Your task to perform on an android device: What's the weather? Image 0: 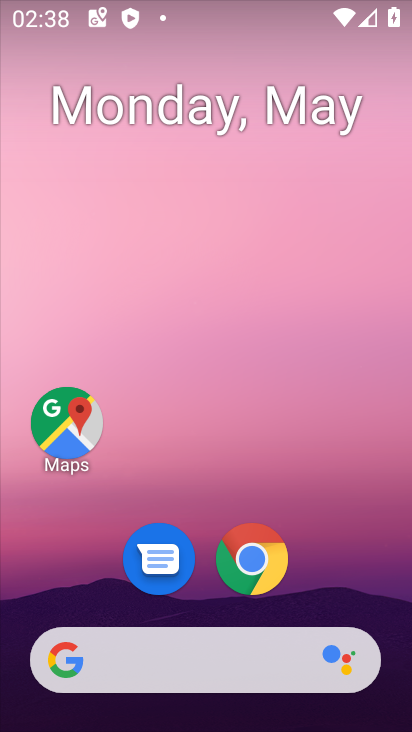
Step 0: click (255, 677)
Your task to perform on an android device: What's the weather? Image 1: 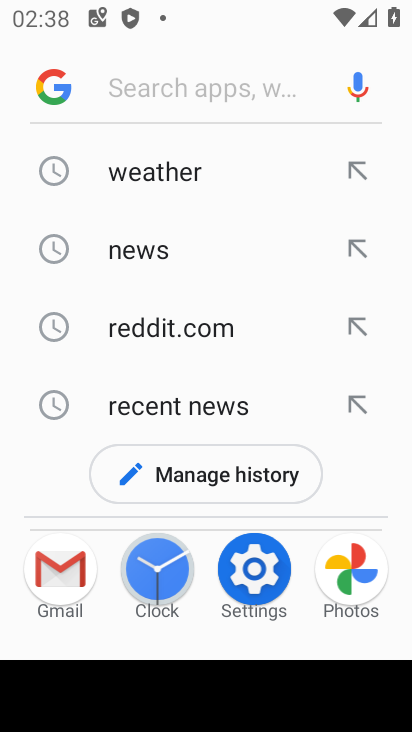
Step 1: click (271, 155)
Your task to perform on an android device: What's the weather? Image 2: 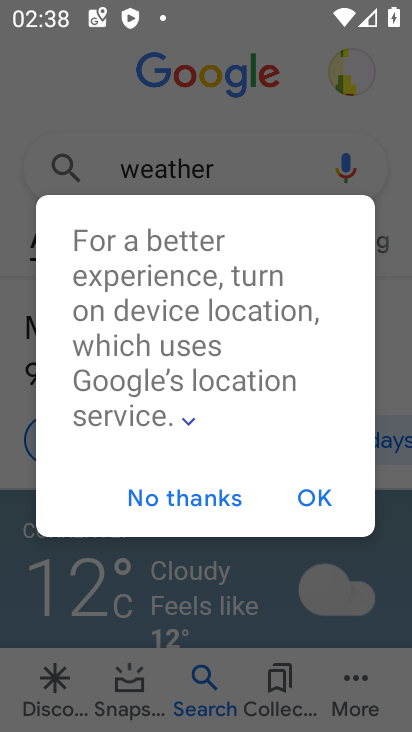
Step 2: click (221, 485)
Your task to perform on an android device: What's the weather? Image 3: 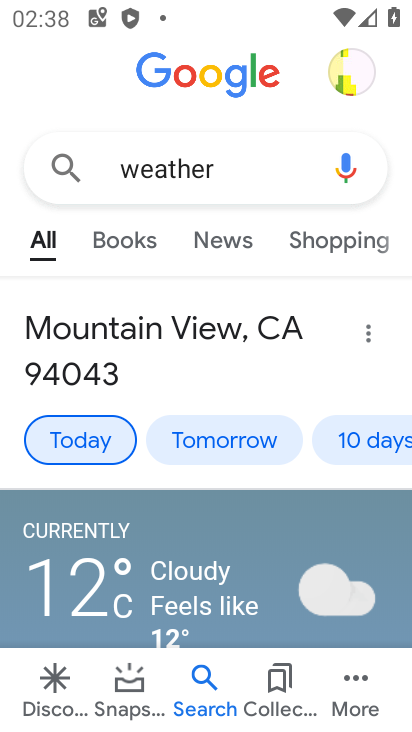
Step 3: task complete